Your task to perform on an android device: turn pop-ups off in chrome Image 0: 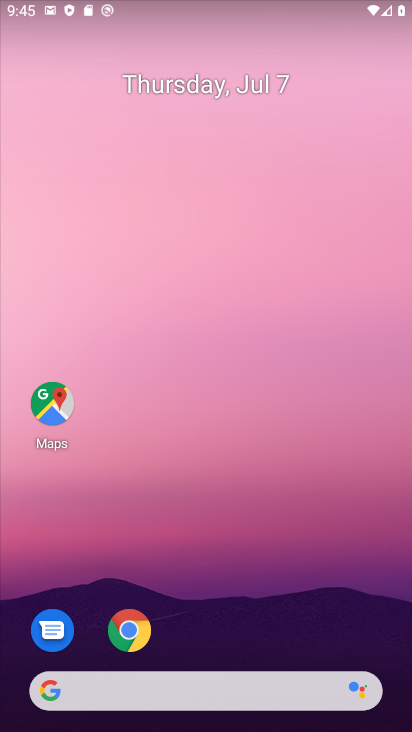
Step 0: drag from (214, 636) to (249, 61)
Your task to perform on an android device: turn pop-ups off in chrome Image 1: 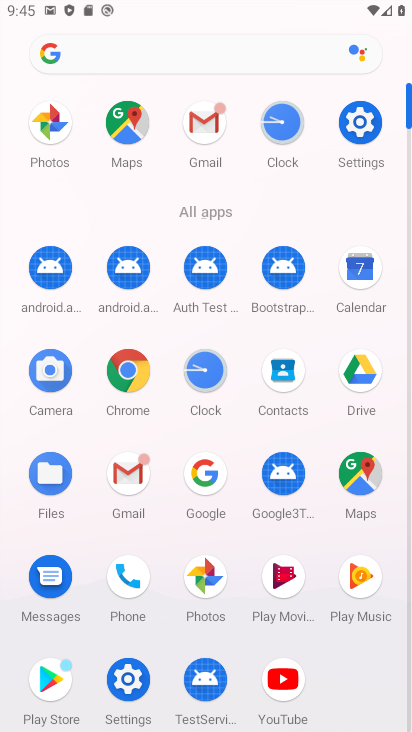
Step 1: click (130, 359)
Your task to perform on an android device: turn pop-ups off in chrome Image 2: 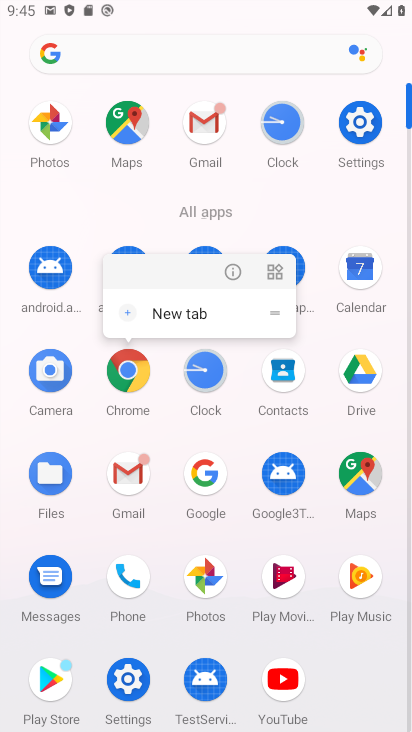
Step 2: click (220, 270)
Your task to perform on an android device: turn pop-ups off in chrome Image 3: 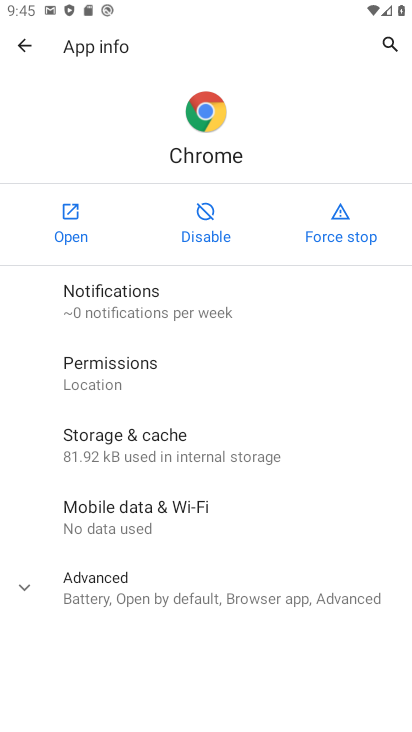
Step 3: click (74, 202)
Your task to perform on an android device: turn pop-ups off in chrome Image 4: 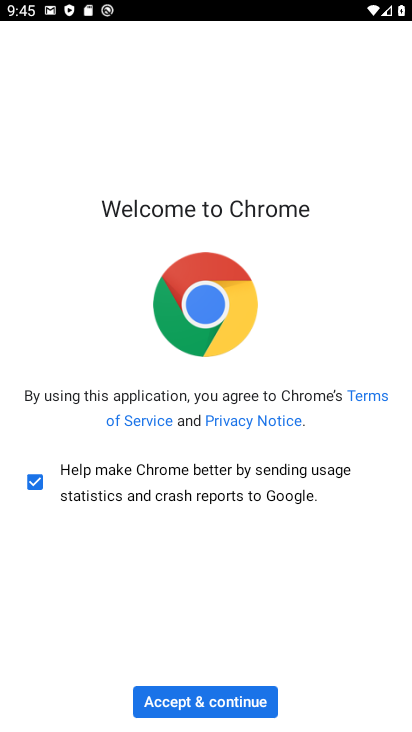
Step 4: click (164, 698)
Your task to perform on an android device: turn pop-ups off in chrome Image 5: 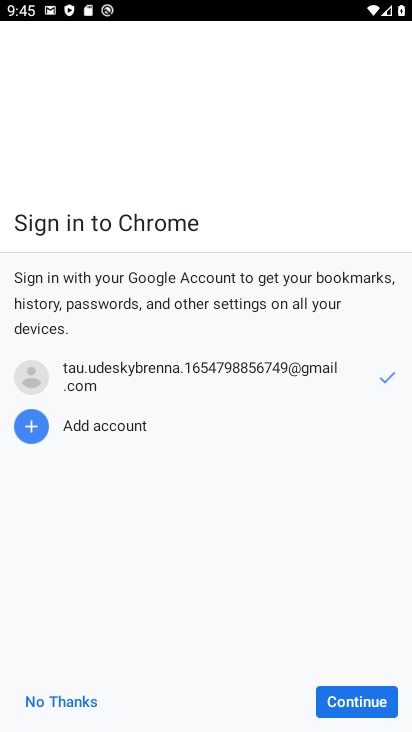
Step 5: click (57, 696)
Your task to perform on an android device: turn pop-ups off in chrome Image 6: 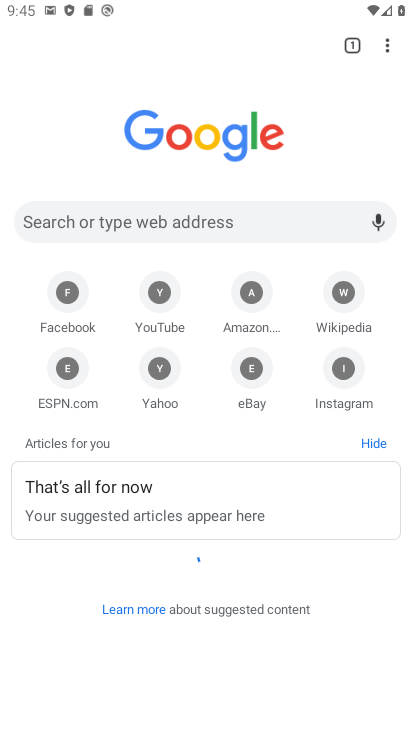
Step 6: click (382, 41)
Your task to perform on an android device: turn pop-ups off in chrome Image 7: 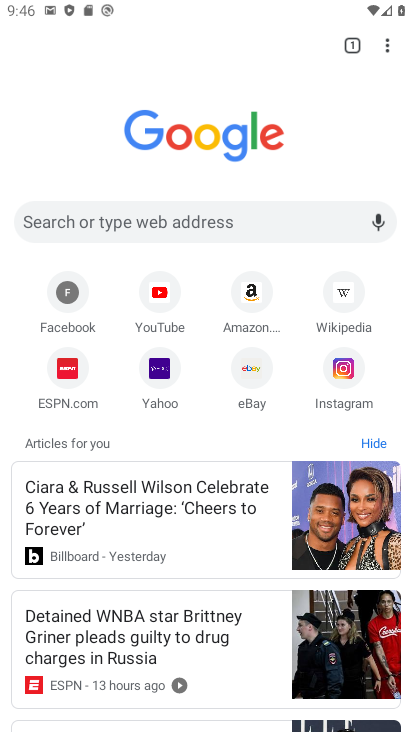
Step 7: click (382, 48)
Your task to perform on an android device: turn pop-ups off in chrome Image 8: 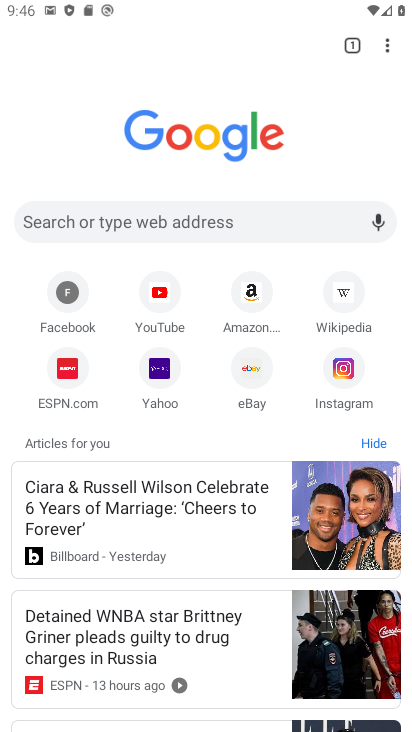
Step 8: click (377, 49)
Your task to perform on an android device: turn pop-ups off in chrome Image 9: 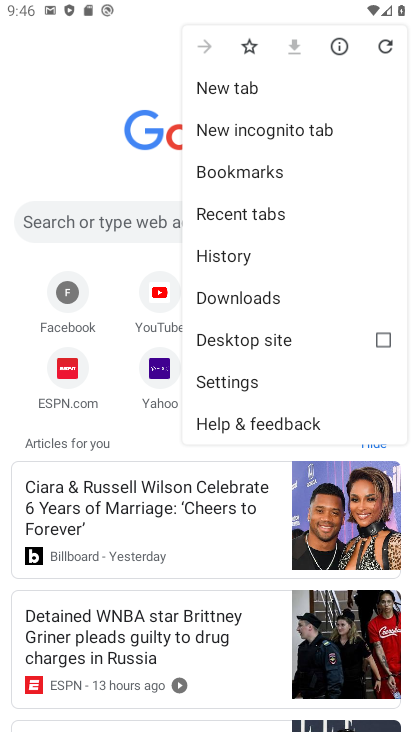
Step 9: click (210, 368)
Your task to perform on an android device: turn pop-ups off in chrome Image 10: 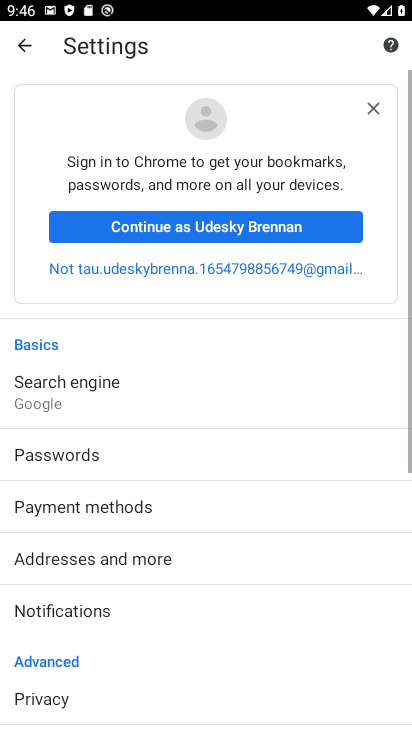
Step 10: drag from (217, 638) to (247, 364)
Your task to perform on an android device: turn pop-ups off in chrome Image 11: 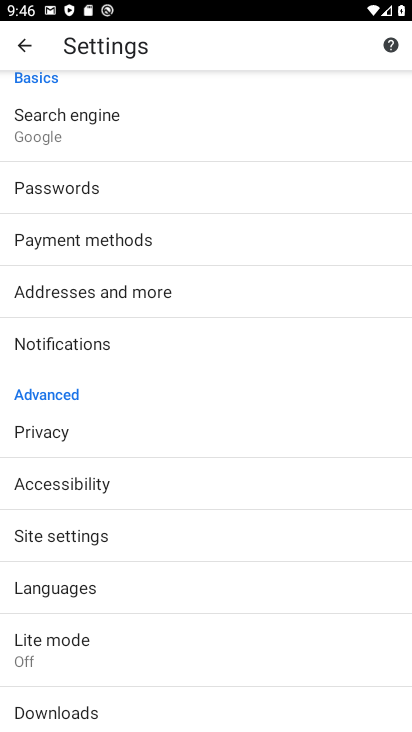
Step 11: drag from (108, 583) to (242, 290)
Your task to perform on an android device: turn pop-ups off in chrome Image 12: 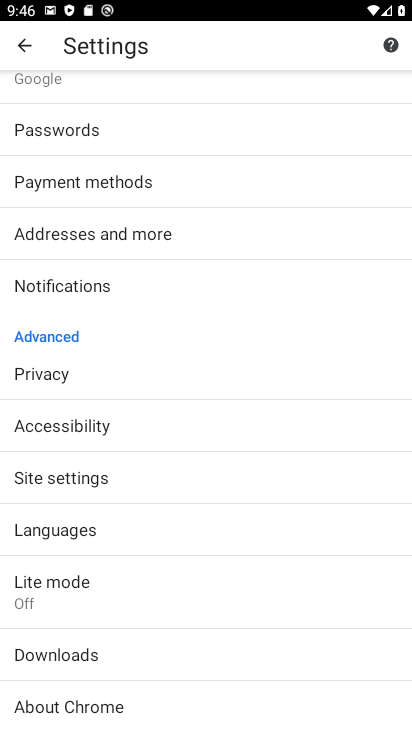
Step 12: click (146, 479)
Your task to perform on an android device: turn pop-ups off in chrome Image 13: 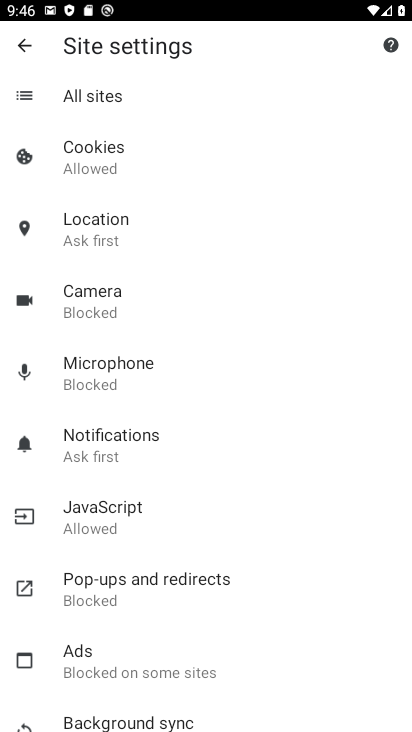
Step 13: drag from (210, 576) to (203, 277)
Your task to perform on an android device: turn pop-ups off in chrome Image 14: 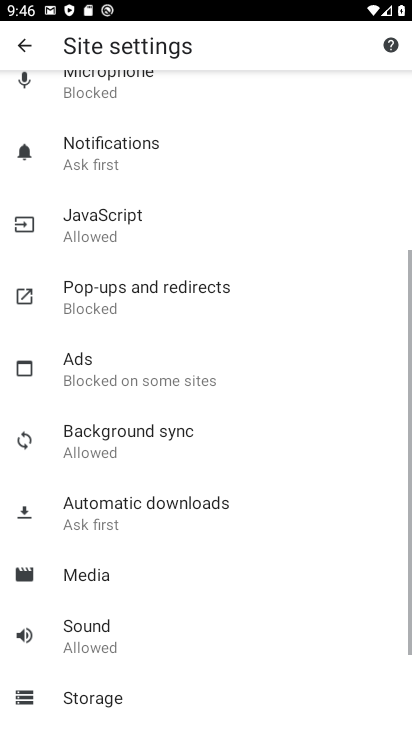
Step 14: drag from (216, 180) to (169, 661)
Your task to perform on an android device: turn pop-ups off in chrome Image 15: 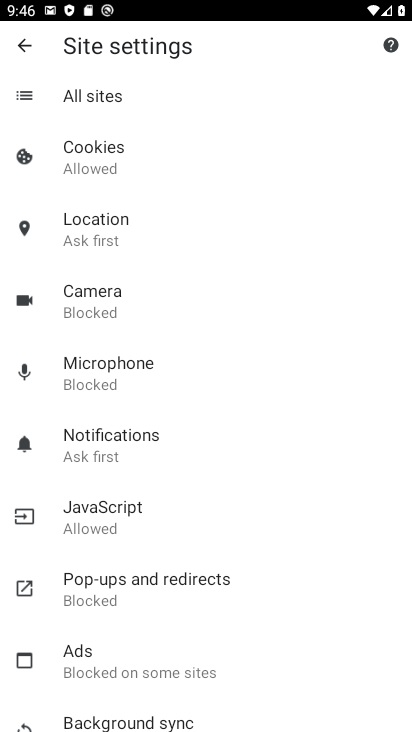
Step 15: drag from (193, 248) to (224, 728)
Your task to perform on an android device: turn pop-ups off in chrome Image 16: 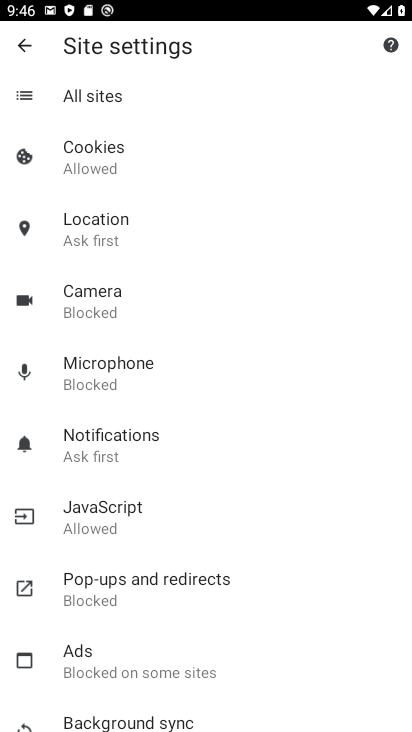
Step 16: drag from (115, 630) to (196, 336)
Your task to perform on an android device: turn pop-ups off in chrome Image 17: 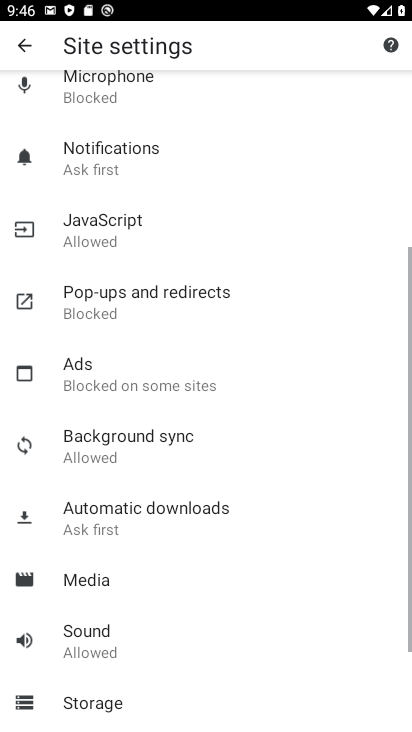
Step 17: drag from (156, 235) to (226, 637)
Your task to perform on an android device: turn pop-ups off in chrome Image 18: 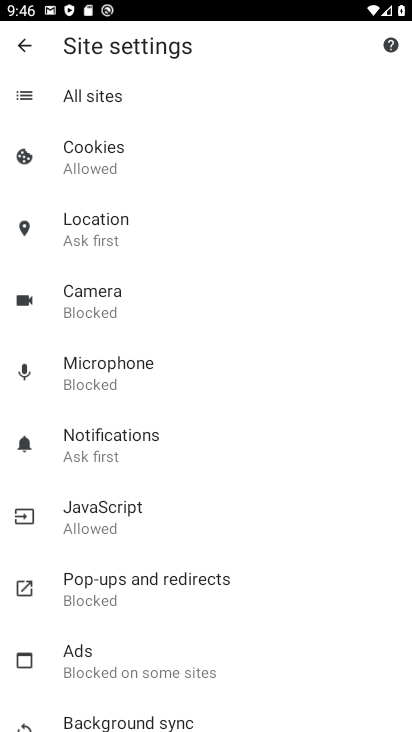
Step 18: click (172, 590)
Your task to perform on an android device: turn pop-ups off in chrome Image 19: 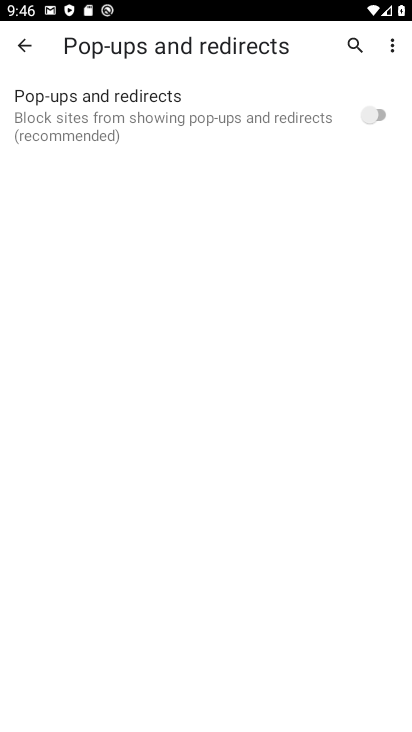
Step 19: task complete